Your task to perform on an android device: Go to Google maps Image 0: 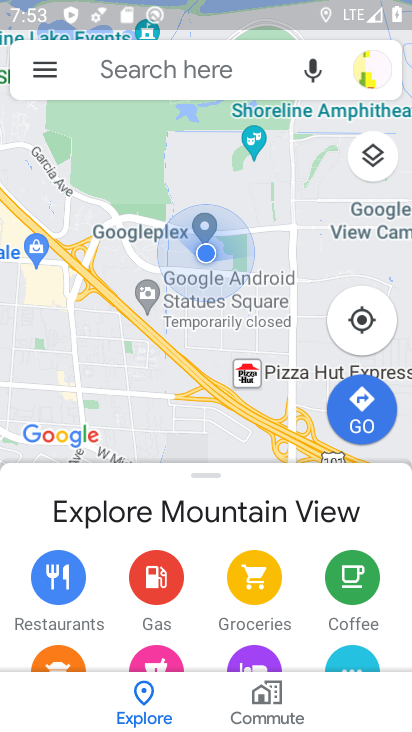
Step 0: task complete